Your task to perform on an android device: turn off translation in the chrome app Image 0: 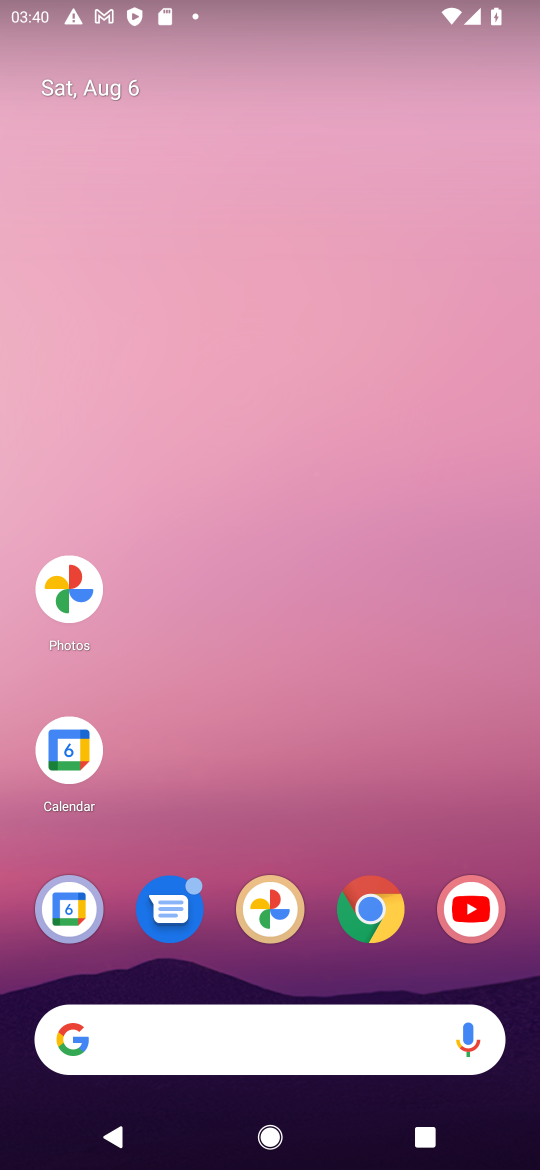
Step 0: click (367, 911)
Your task to perform on an android device: turn off translation in the chrome app Image 1: 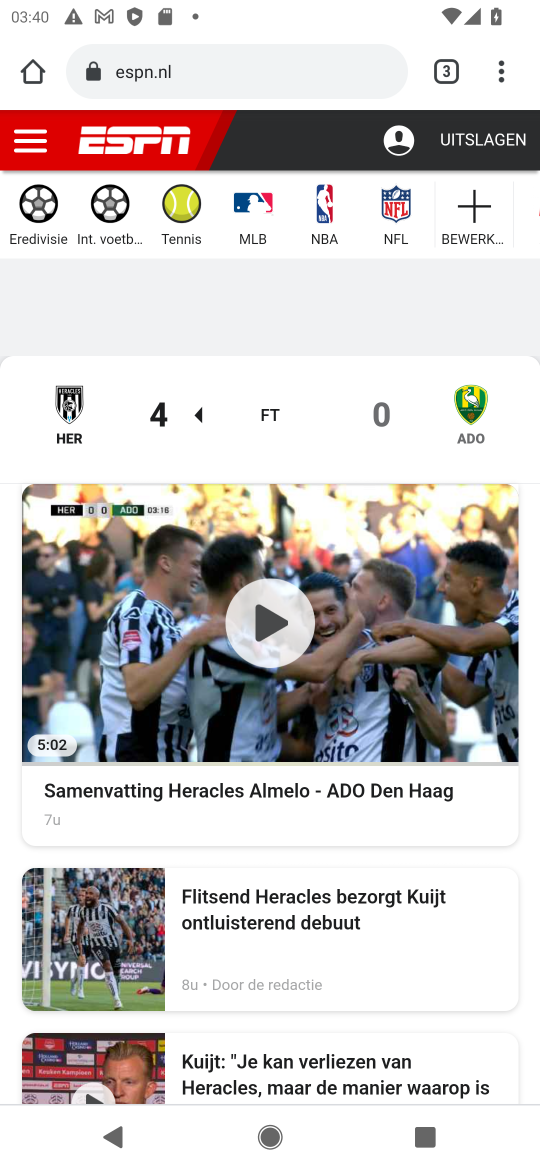
Step 1: click (509, 63)
Your task to perform on an android device: turn off translation in the chrome app Image 2: 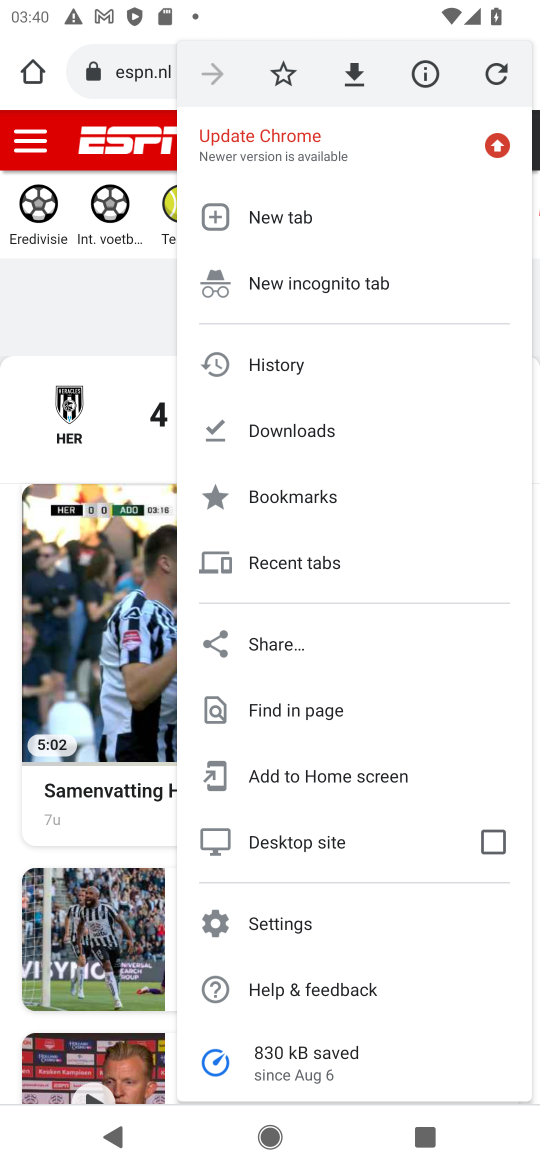
Step 2: click (274, 913)
Your task to perform on an android device: turn off translation in the chrome app Image 3: 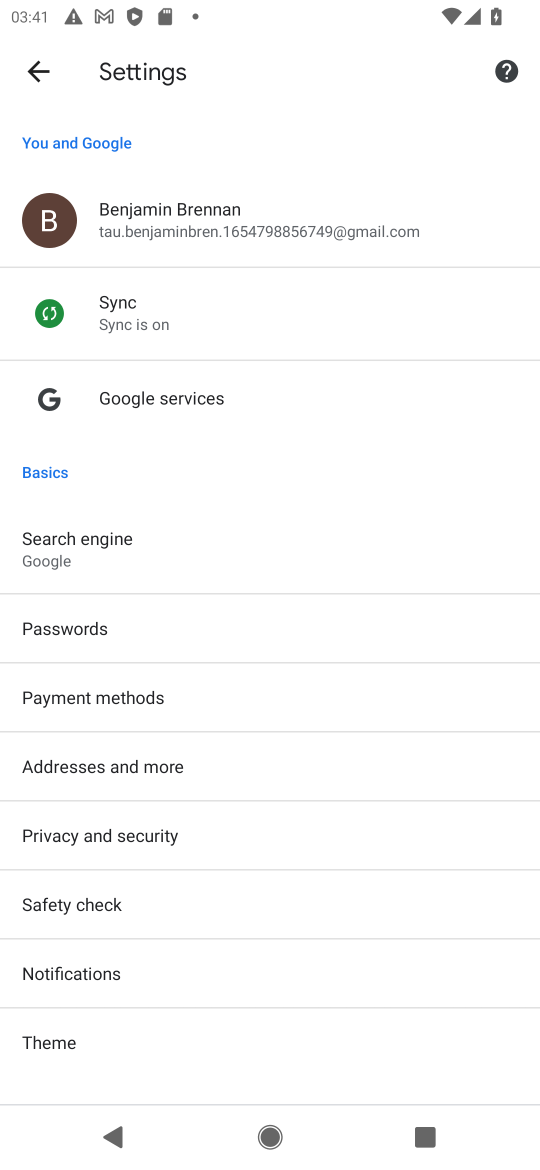
Step 3: drag from (207, 945) to (223, 205)
Your task to perform on an android device: turn off translation in the chrome app Image 4: 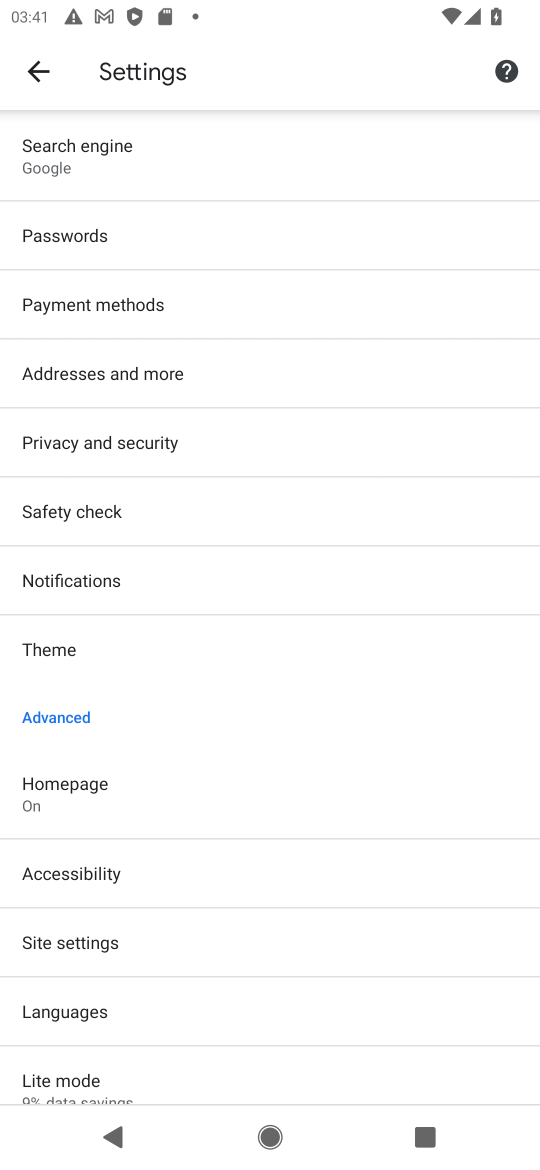
Step 4: click (79, 1012)
Your task to perform on an android device: turn off translation in the chrome app Image 5: 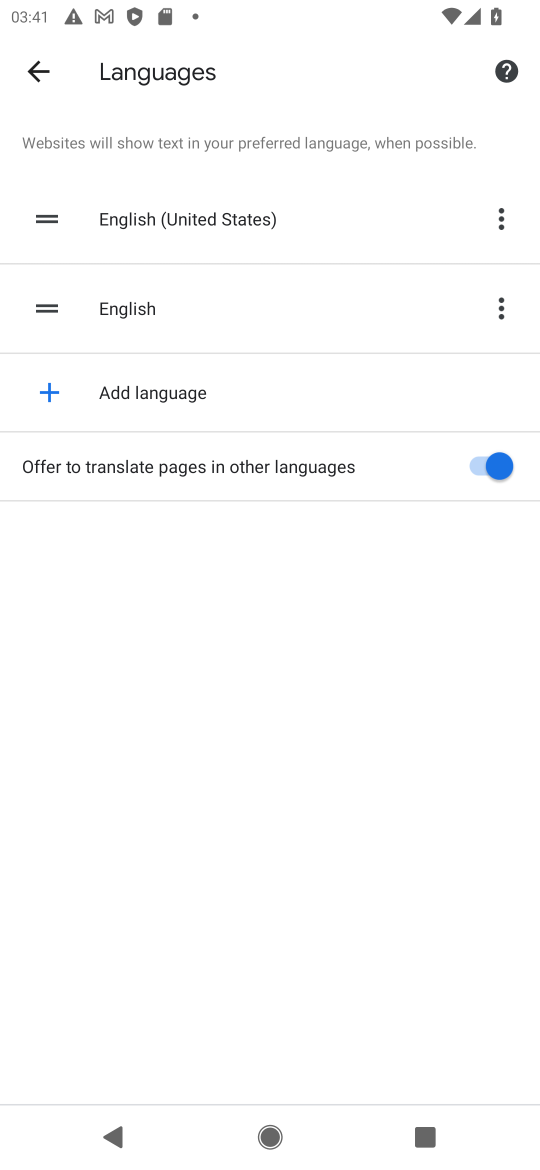
Step 5: click (508, 462)
Your task to perform on an android device: turn off translation in the chrome app Image 6: 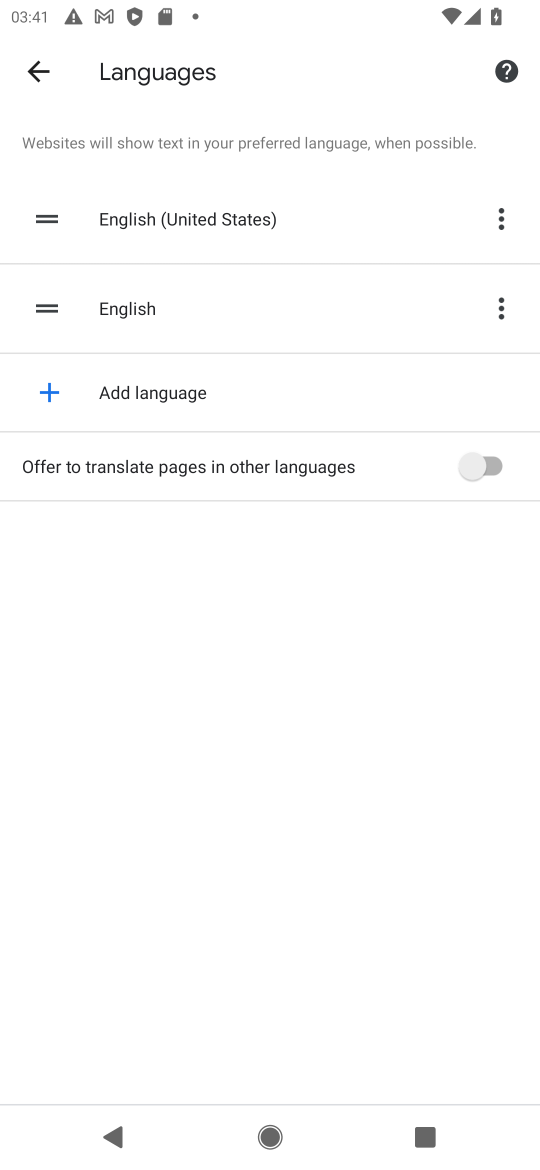
Step 6: task complete